Your task to perform on an android device: Open network settings Image 0: 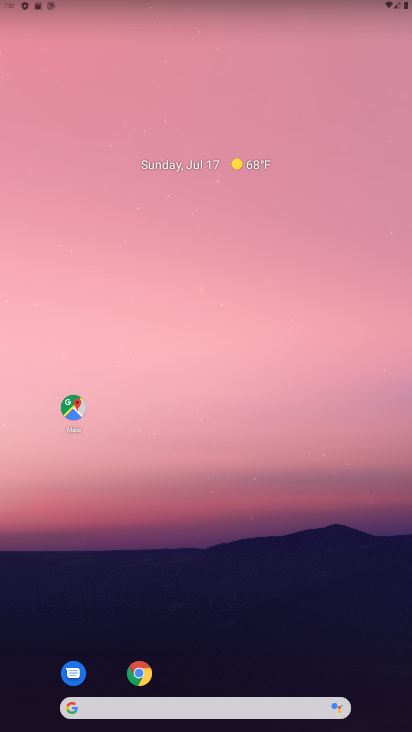
Step 0: drag from (170, 597) to (147, 2)
Your task to perform on an android device: Open network settings Image 1: 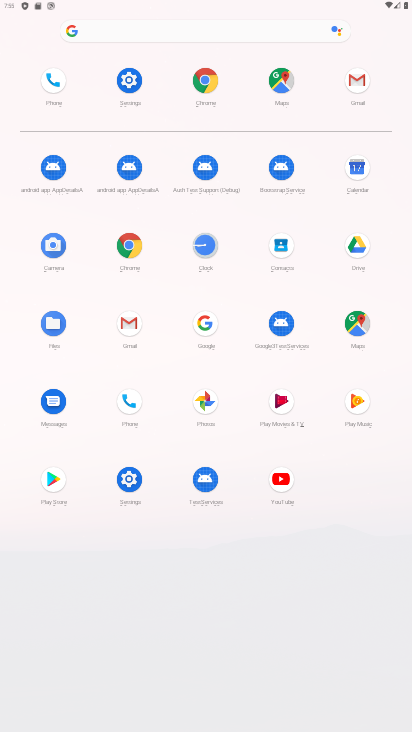
Step 1: click (148, 86)
Your task to perform on an android device: Open network settings Image 2: 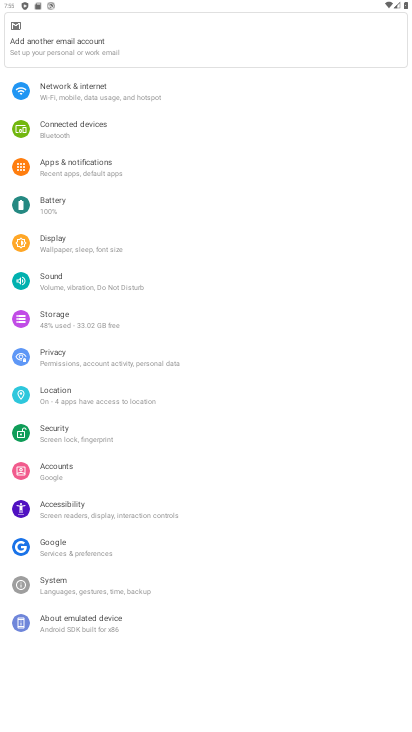
Step 2: click (48, 94)
Your task to perform on an android device: Open network settings Image 3: 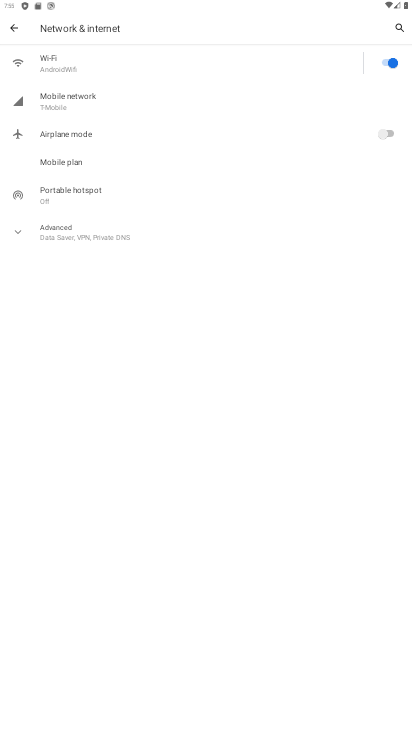
Step 3: task complete